Your task to perform on an android device: Search for pizza restaurants on Maps Image 0: 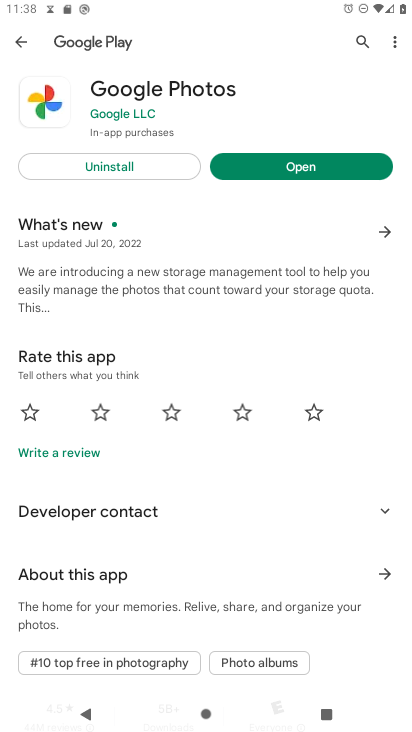
Step 0: press home button
Your task to perform on an android device: Search for pizza restaurants on Maps Image 1: 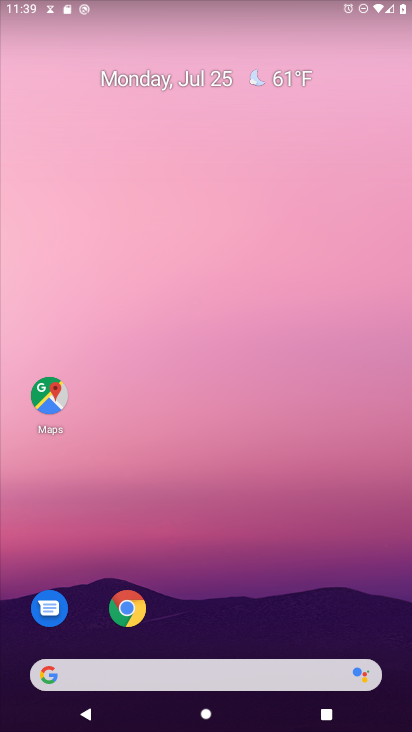
Step 1: click (51, 399)
Your task to perform on an android device: Search for pizza restaurants on Maps Image 2: 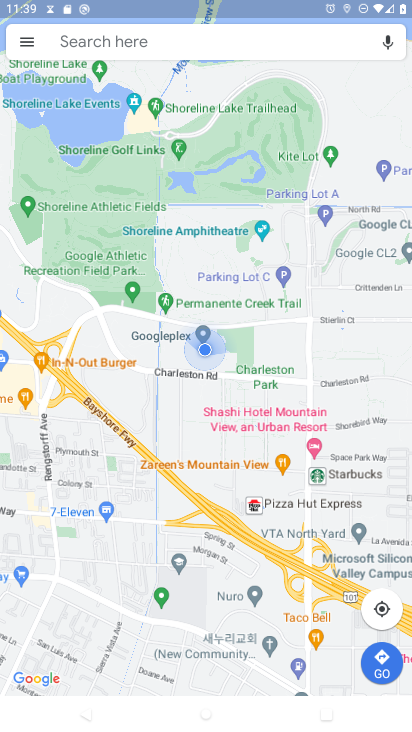
Step 2: click (85, 43)
Your task to perform on an android device: Search for pizza restaurants on Maps Image 3: 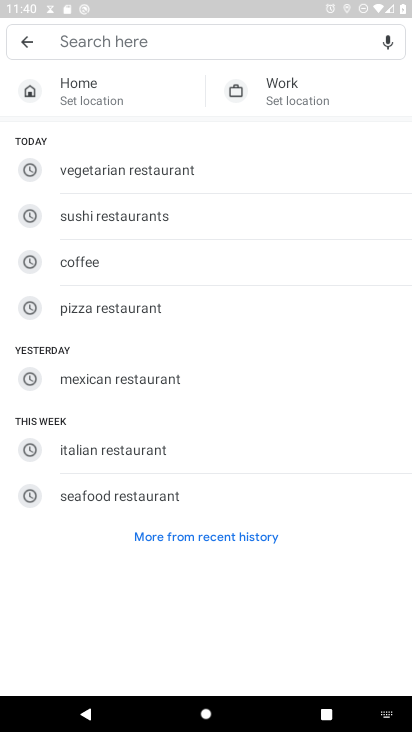
Step 3: type "pizza restaurants"
Your task to perform on an android device: Search for pizza restaurants on Maps Image 4: 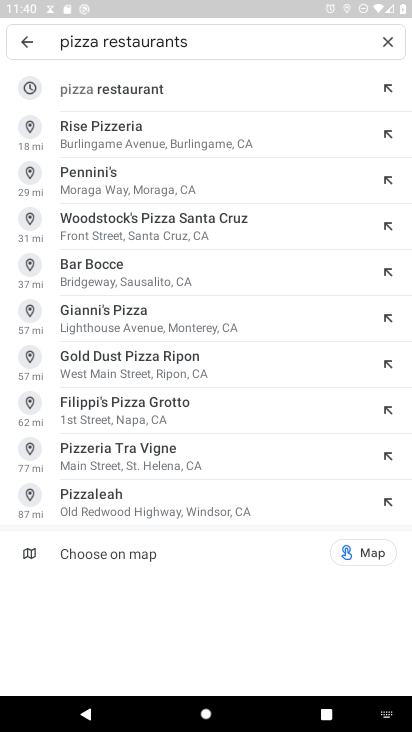
Step 4: click (121, 92)
Your task to perform on an android device: Search for pizza restaurants on Maps Image 5: 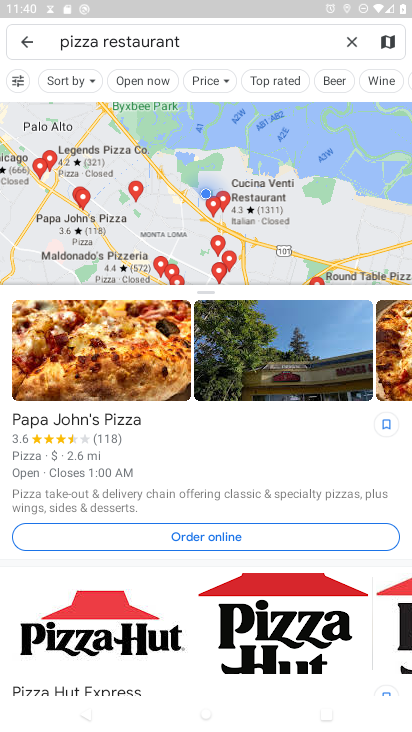
Step 5: task complete